Your task to perform on an android device: toggle priority inbox in the gmail app Image 0: 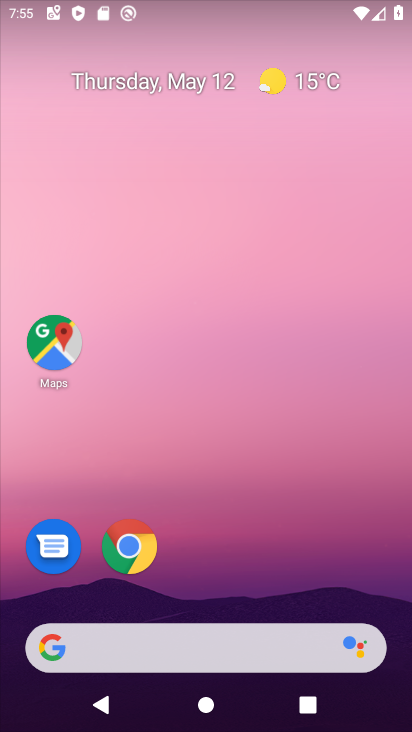
Step 0: drag from (190, 660) to (266, 177)
Your task to perform on an android device: toggle priority inbox in the gmail app Image 1: 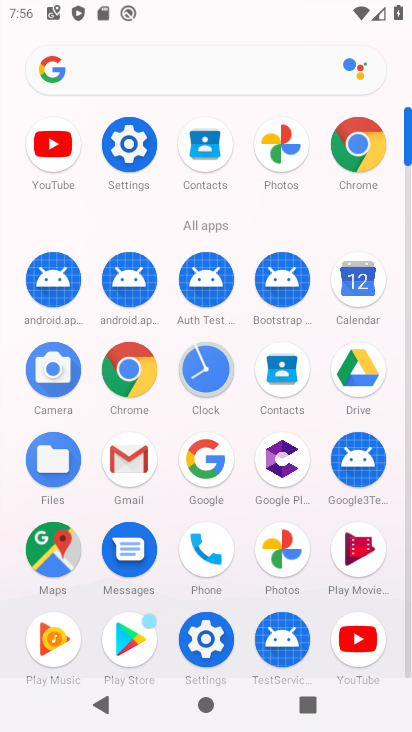
Step 1: click (129, 461)
Your task to perform on an android device: toggle priority inbox in the gmail app Image 2: 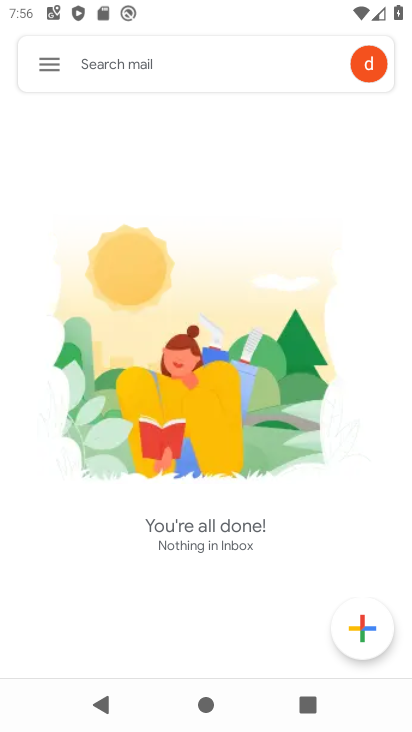
Step 2: click (48, 61)
Your task to perform on an android device: toggle priority inbox in the gmail app Image 3: 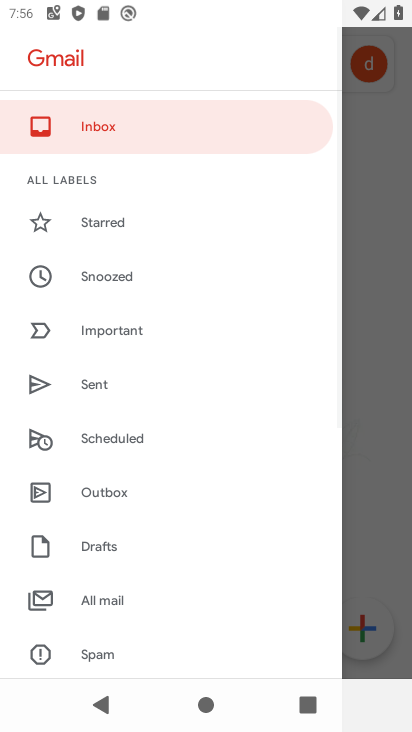
Step 3: drag from (176, 586) to (277, 82)
Your task to perform on an android device: toggle priority inbox in the gmail app Image 4: 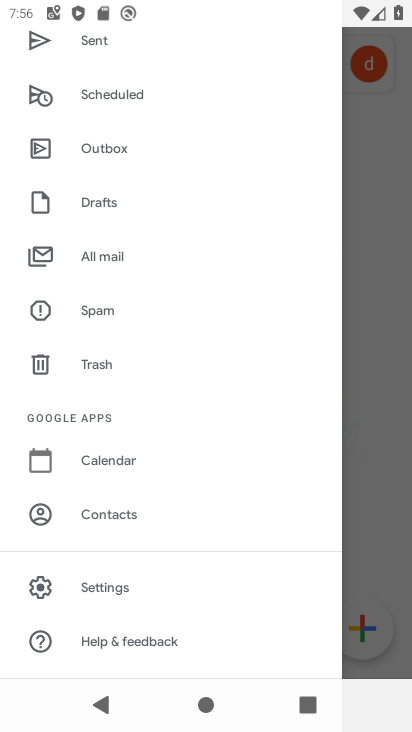
Step 4: click (113, 587)
Your task to perform on an android device: toggle priority inbox in the gmail app Image 5: 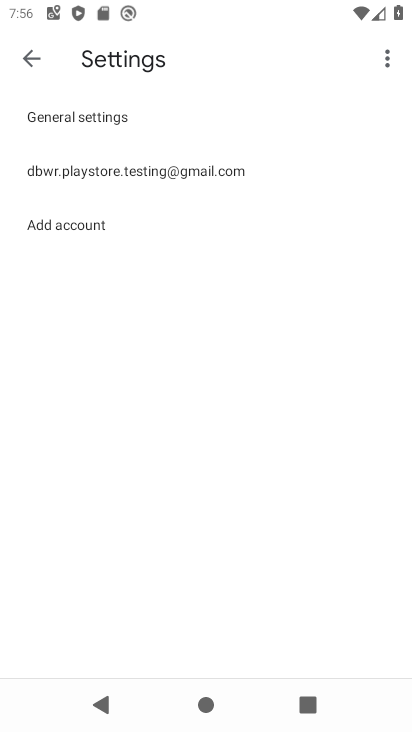
Step 5: click (161, 171)
Your task to perform on an android device: toggle priority inbox in the gmail app Image 6: 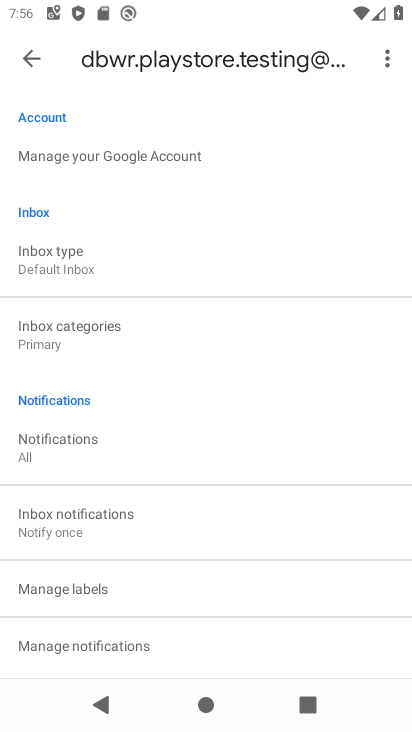
Step 6: click (75, 263)
Your task to perform on an android device: toggle priority inbox in the gmail app Image 7: 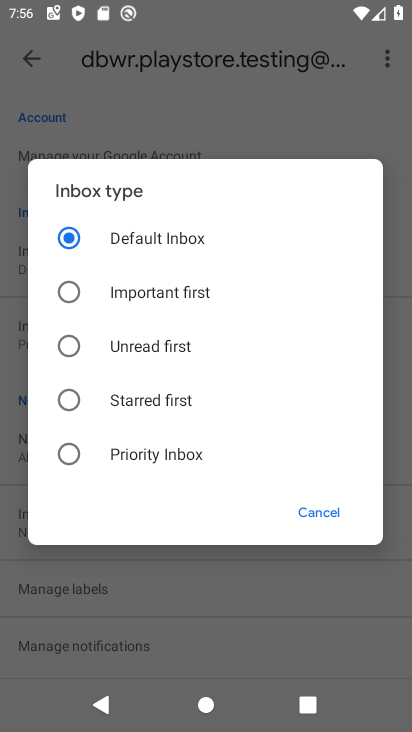
Step 7: click (71, 450)
Your task to perform on an android device: toggle priority inbox in the gmail app Image 8: 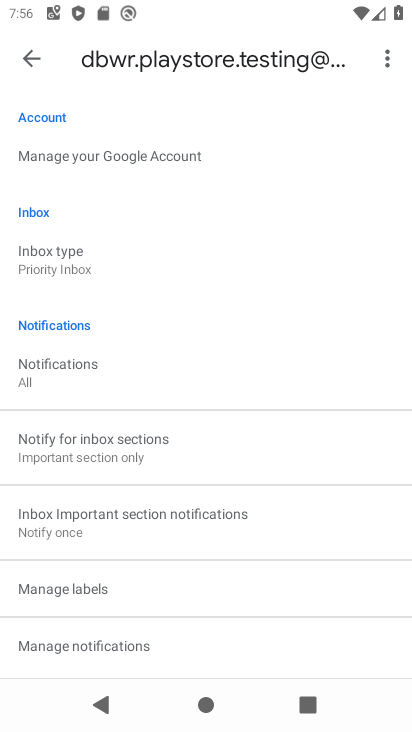
Step 8: task complete